Your task to perform on an android device: See recent photos Image 0: 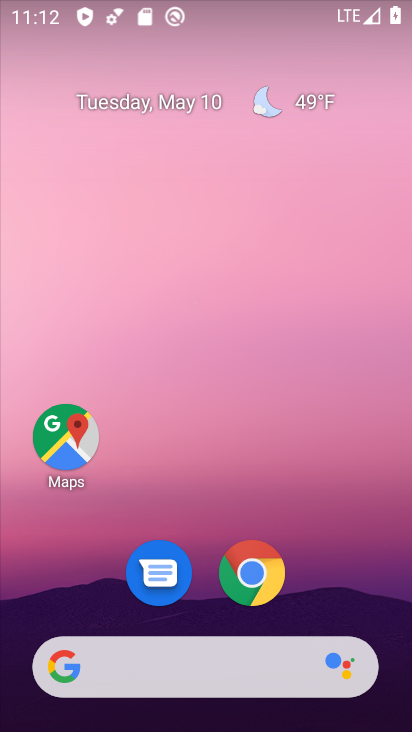
Step 0: press home button
Your task to perform on an android device: See recent photos Image 1: 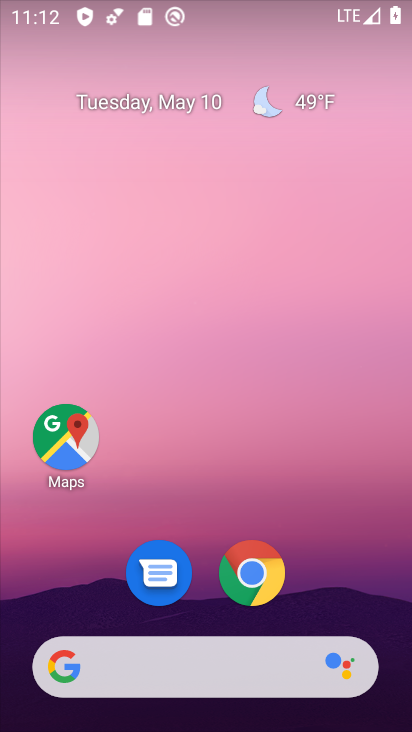
Step 1: drag from (138, 673) to (296, 97)
Your task to perform on an android device: See recent photos Image 2: 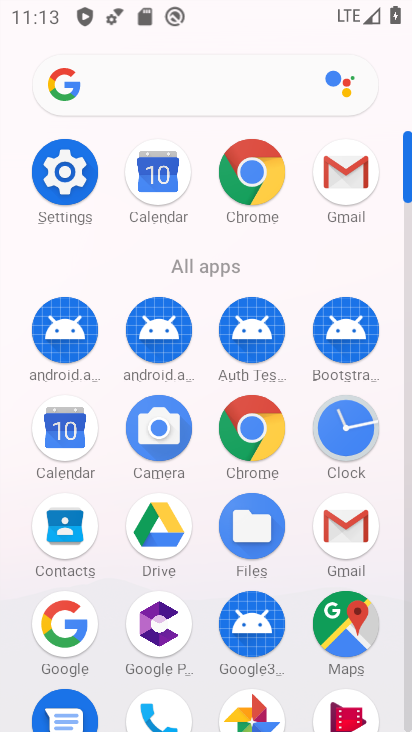
Step 2: drag from (215, 635) to (331, 215)
Your task to perform on an android device: See recent photos Image 3: 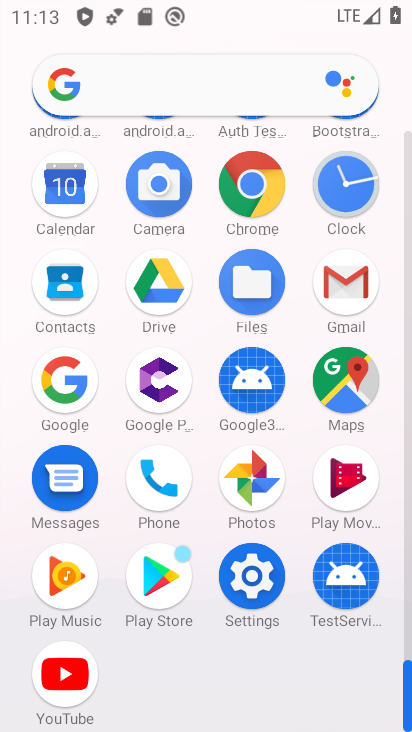
Step 3: click (258, 488)
Your task to perform on an android device: See recent photos Image 4: 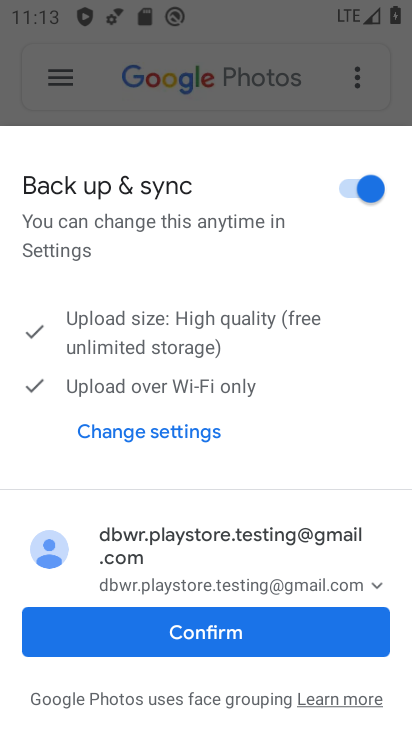
Step 4: click (191, 646)
Your task to perform on an android device: See recent photos Image 5: 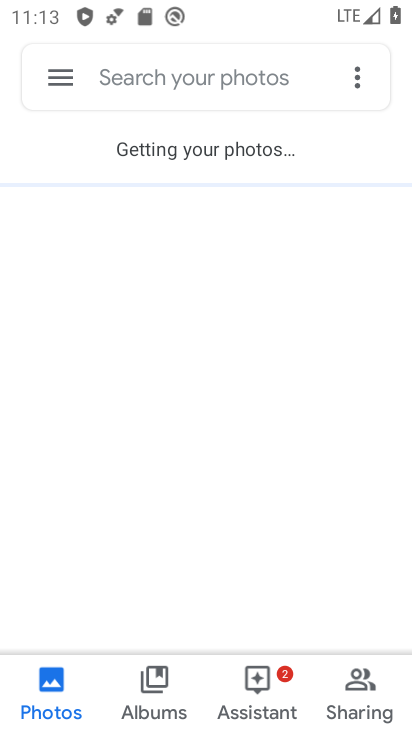
Step 5: click (169, 703)
Your task to perform on an android device: See recent photos Image 6: 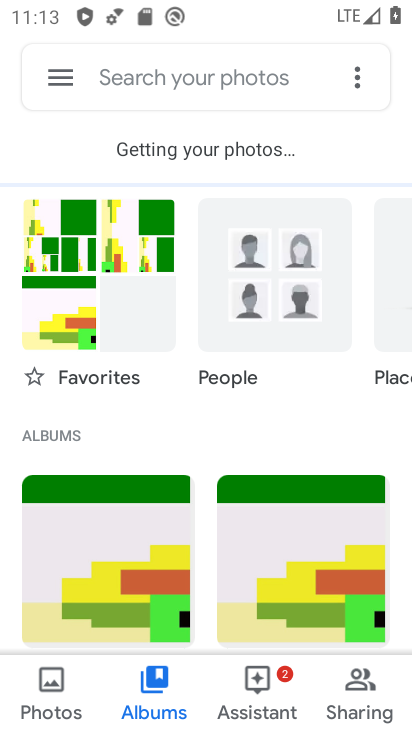
Step 6: task complete